Your task to perform on an android device: open app "Pinterest" (install if not already installed) Image 0: 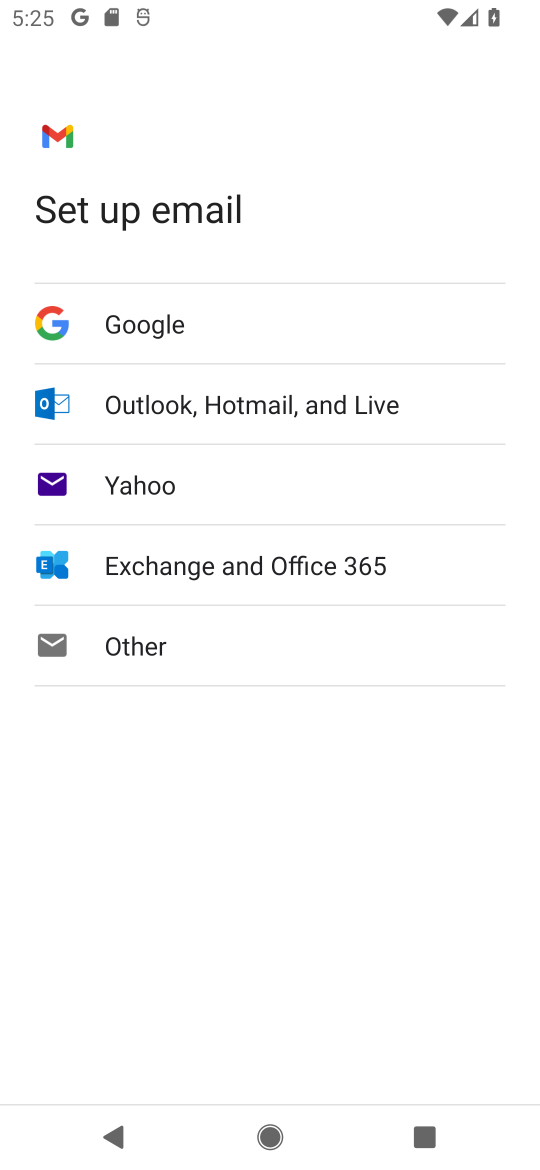
Step 0: press home button
Your task to perform on an android device: open app "Pinterest" (install if not already installed) Image 1: 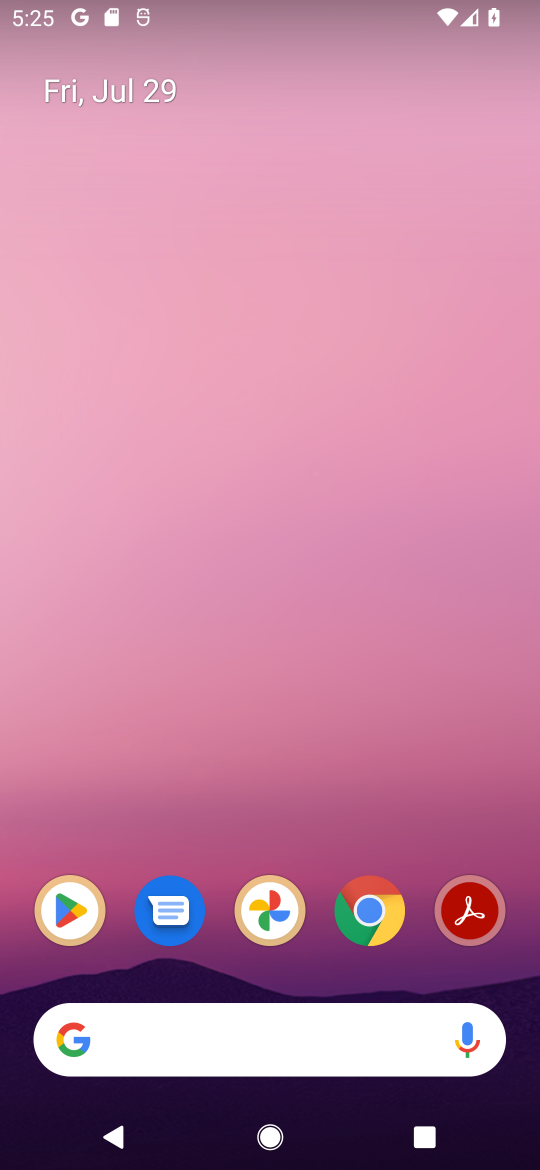
Step 1: click (84, 911)
Your task to perform on an android device: open app "Pinterest" (install if not already installed) Image 2: 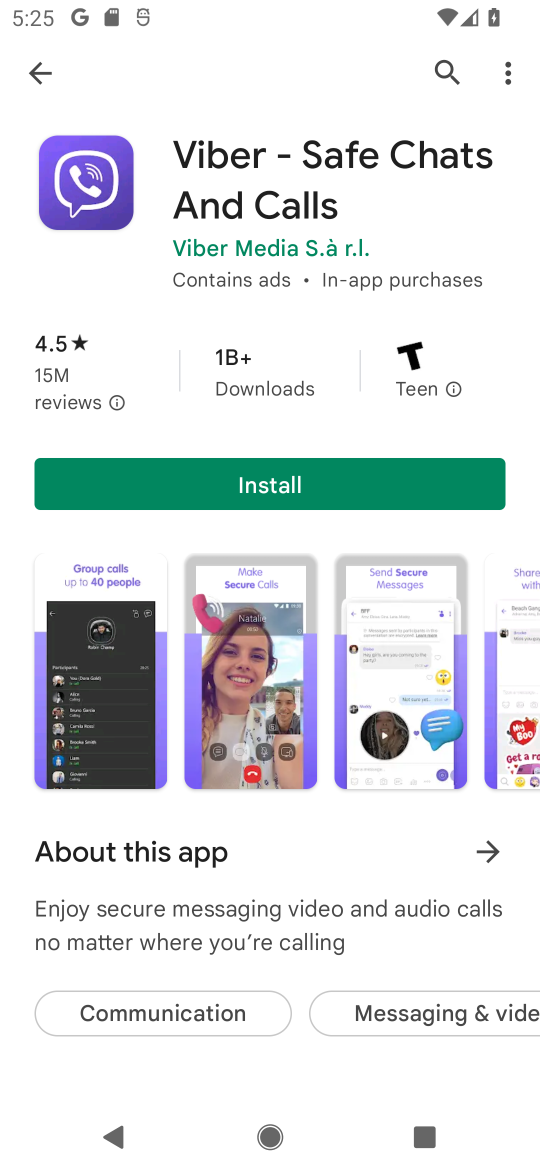
Step 2: click (445, 67)
Your task to perform on an android device: open app "Pinterest" (install if not already installed) Image 3: 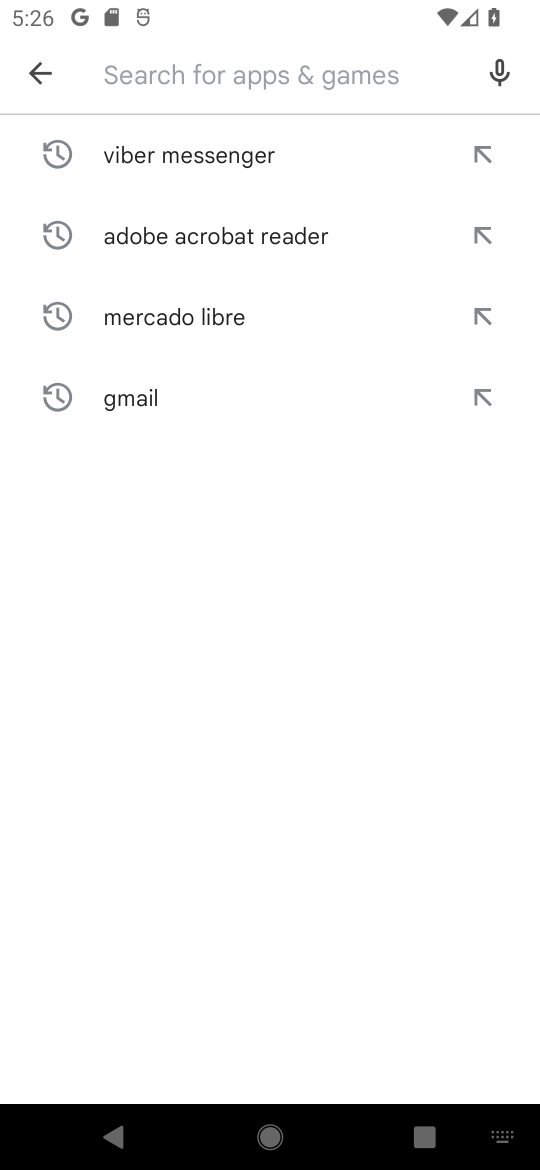
Step 3: type "pinterest"
Your task to perform on an android device: open app "Pinterest" (install if not already installed) Image 4: 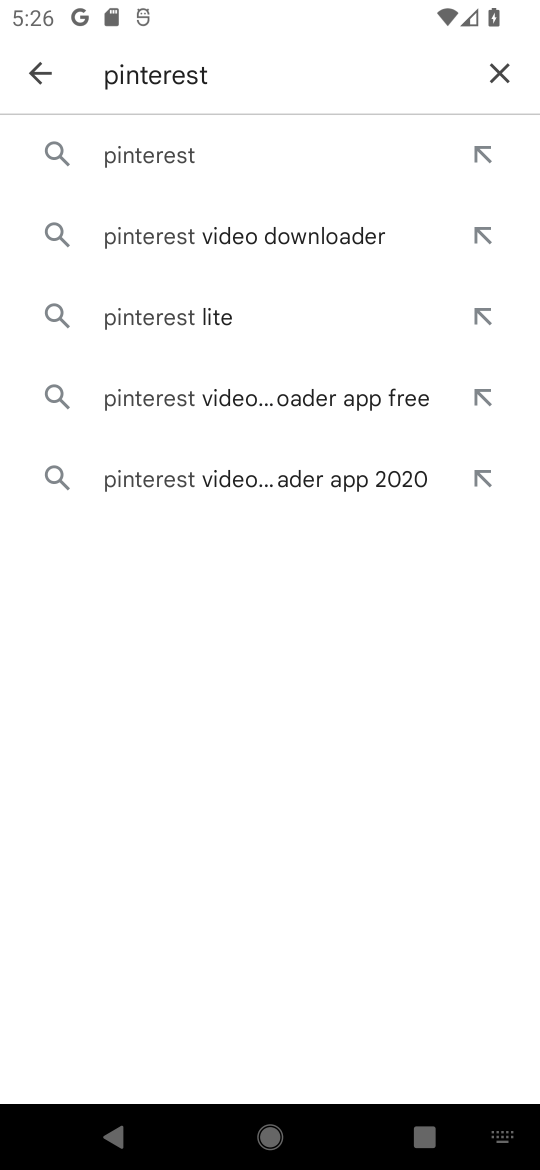
Step 4: click (177, 164)
Your task to perform on an android device: open app "Pinterest" (install if not already installed) Image 5: 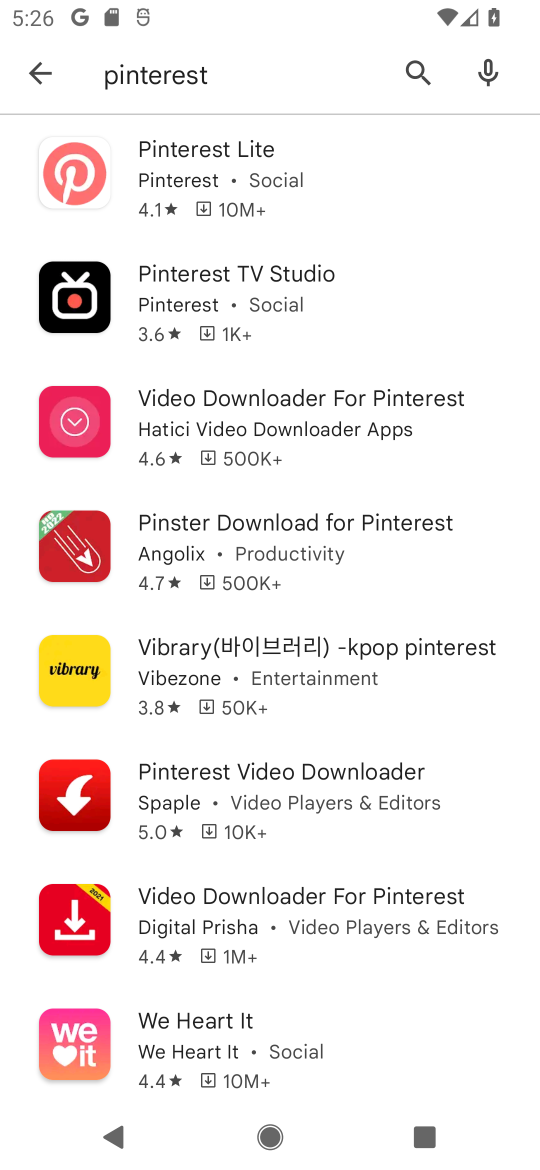
Step 5: task complete